Your task to perform on an android device: turn off javascript in the chrome app Image 0: 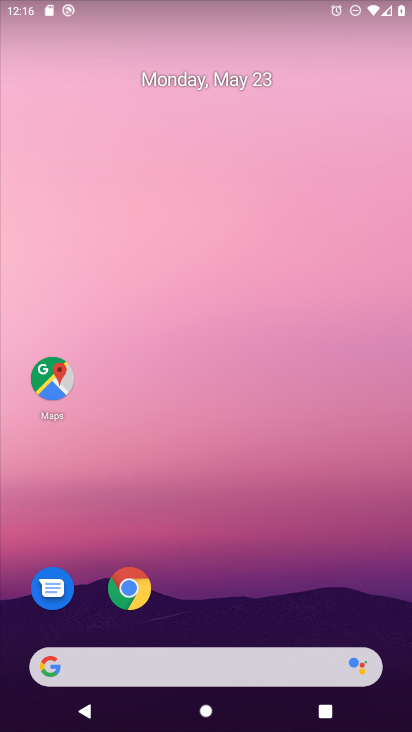
Step 0: drag from (289, 689) to (194, 210)
Your task to perform on an android device: turn off javascript in the chrome app Image 1: 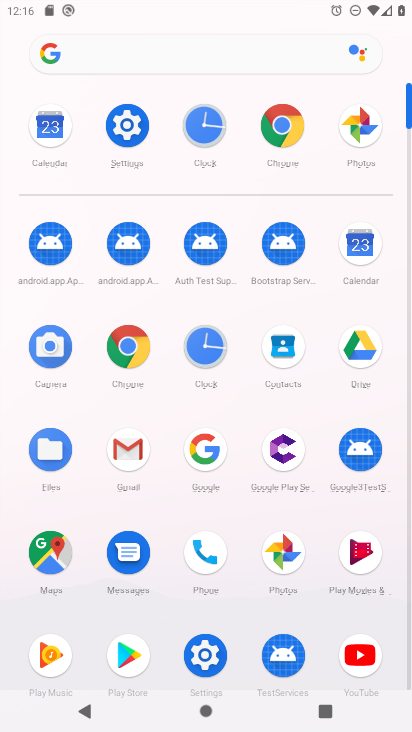
Step 1: click (273, 145)
Your task to perform on an android device: turn off javascript in the chrome app Image 2: 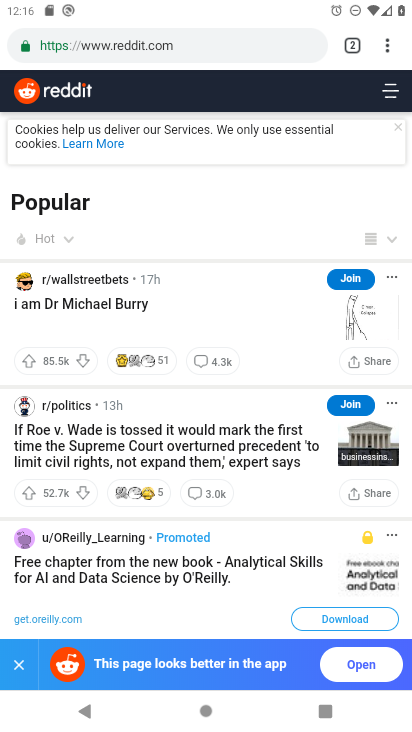
Step 2: click (378, 67)
Your task to perform on an android device: turn off javascript in the chrome app Image 3: 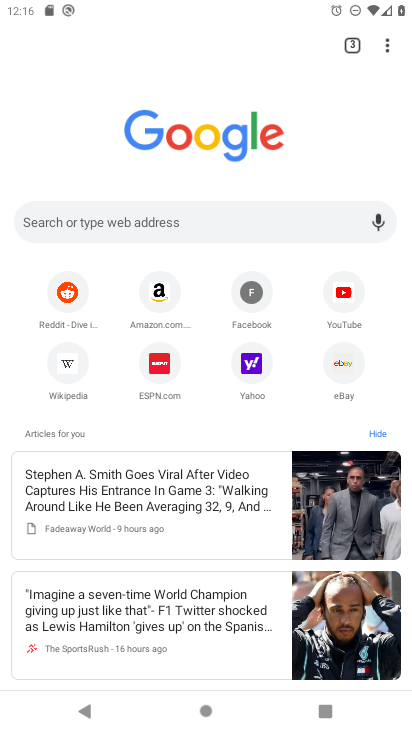
Step 3: click (378, 51)
Your task to perform on an android device: turn off javascript in the chrome app Image 4: 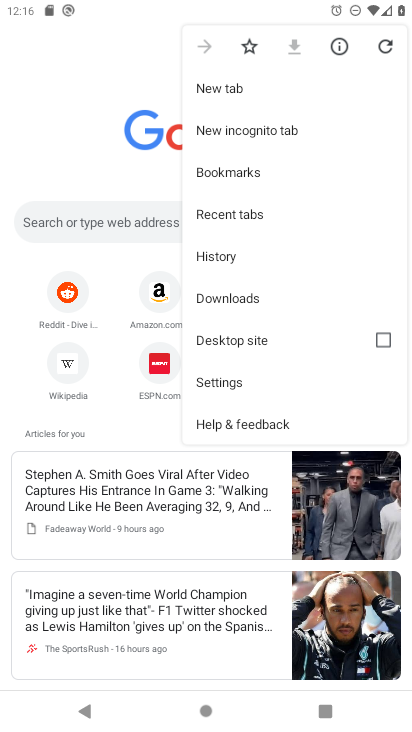
Step 4: click (231, 377)
Your task to perform on an android device: turn off javascript in the chrome app Image 5: 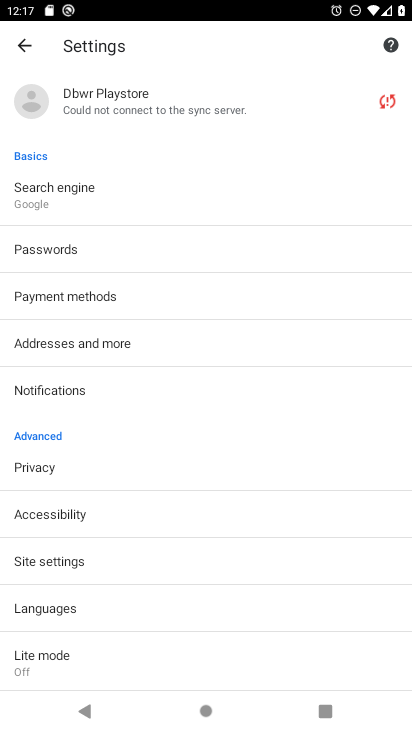
Step 5: click (66, 557)
Your task to perform on an android device: turn off javascript in the chrome app Image 6: 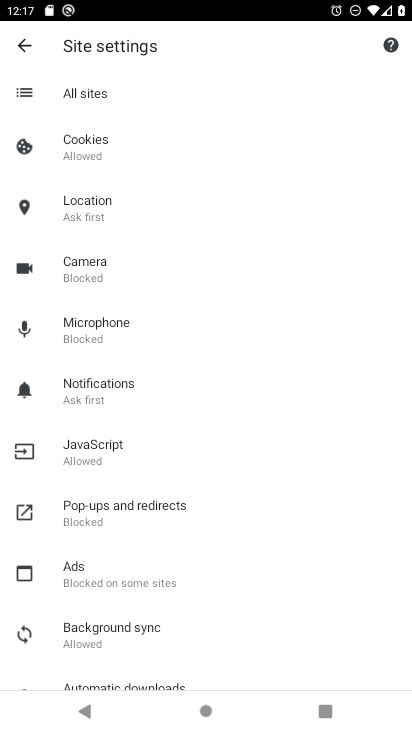
Step 6: click (84, 457)
Your task to perform on an android device: turn off javascript in the chrome app Image 7: 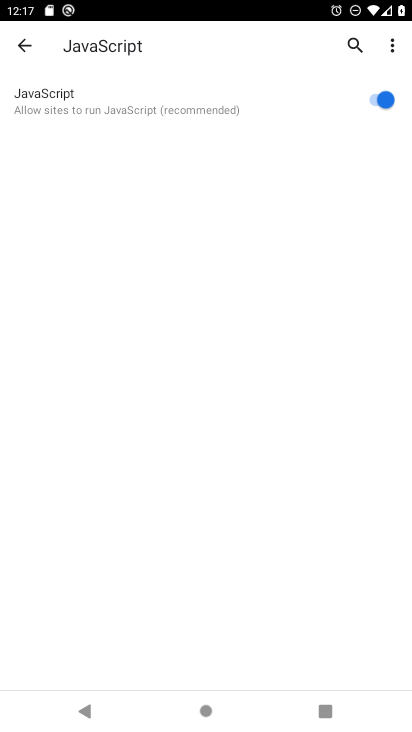
Step 7: click (373, 101)
Your task to perform on an android device: turn off javascript in the chrome app Image 8: 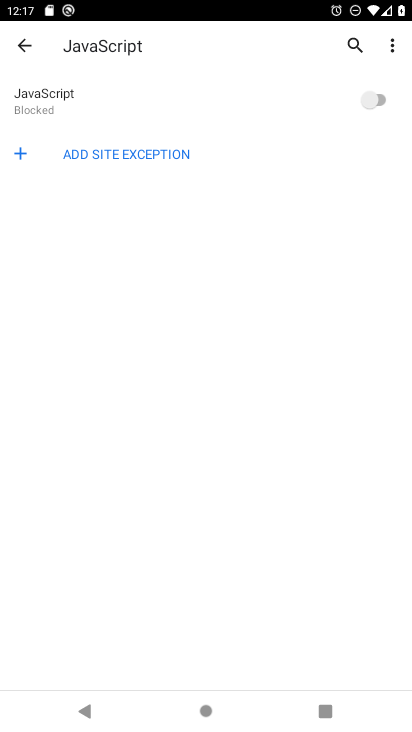
Step 8: task complete